Your task to perform on an android device: turn on showing notifications on the lock screen Image 0: 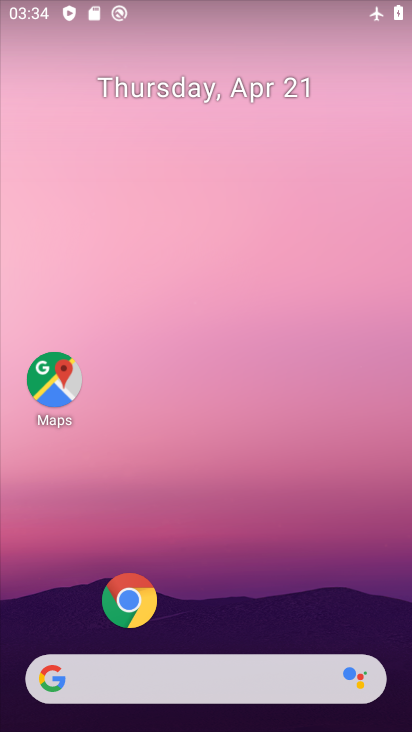
Step 0: drag from (254, 621) to (241, 197)
Your task to perform on an android device: turn on showing notifications on the lock screen Image 1: 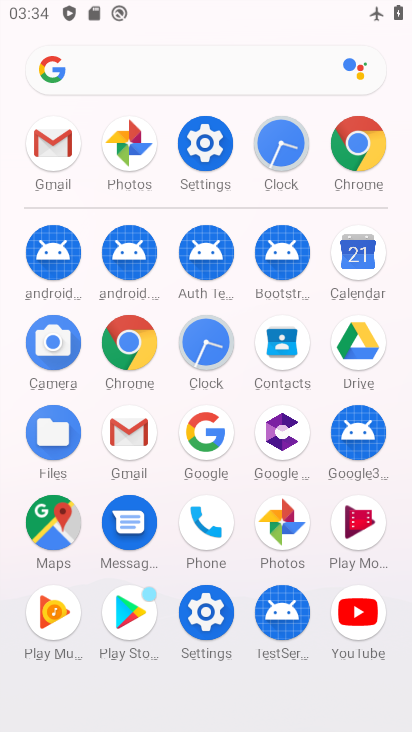
Step 1: click (221, 158)
Your task to perform on an android device: turn on showing notifications on the lock screen Image 2: 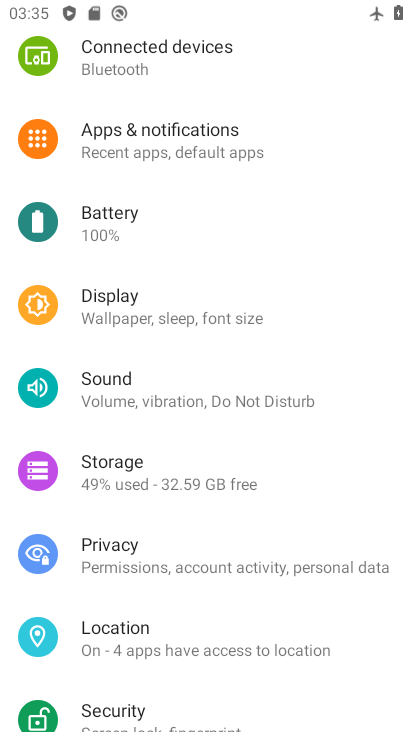
Step 2: click (214, 145)
Your task to perform on an android device: turn on showing notifications on the lock screen Image 3: 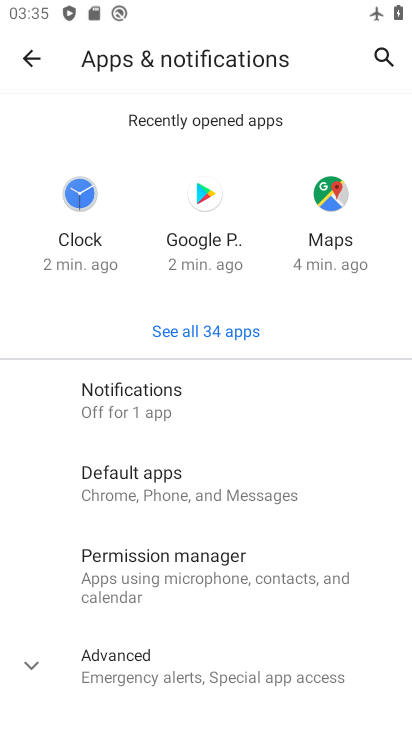
Step 3: click (186, 408)
Your task to perform on an android device: turn on showing notifications on the lock screen Image 4: 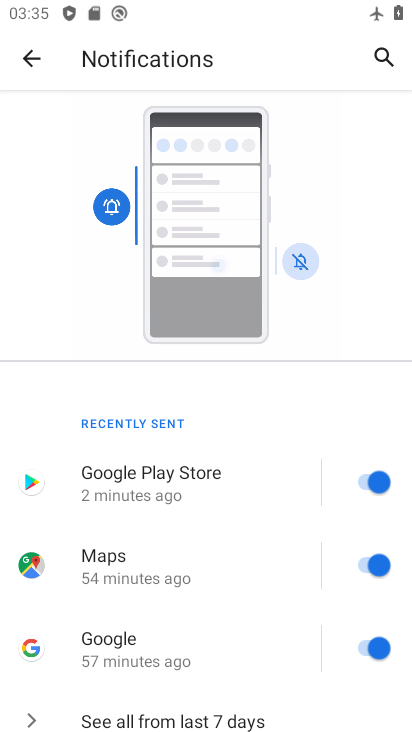
Step 4: drag from (168, 618) to (199, 148)
Your task to perform on an android device: turn on showing notifications on the lock screen Image 5: 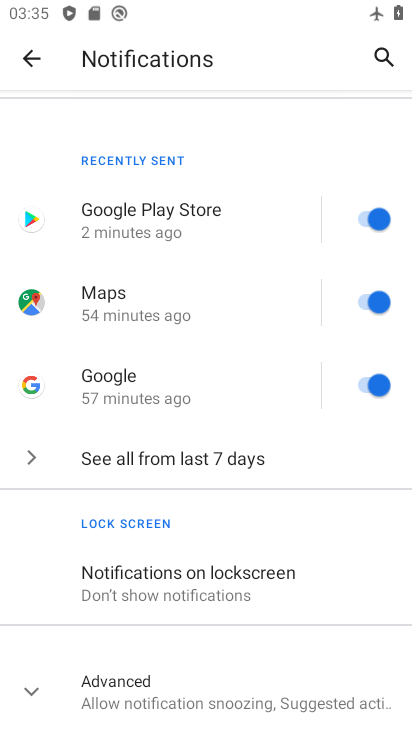
Step 5: click (148, 594)
Your task to perform on an android device: turn on showing notifications on the lock screen Image 6: 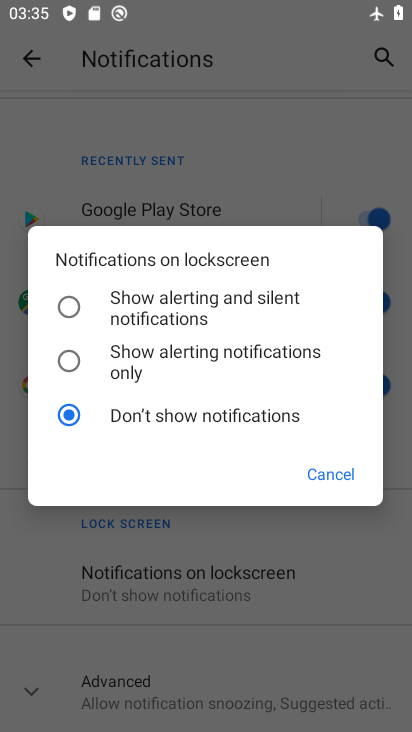
Step 6: click (198, 315)
Your task to perform on an android device: turn on showing notifications on the lock screen Image 7: 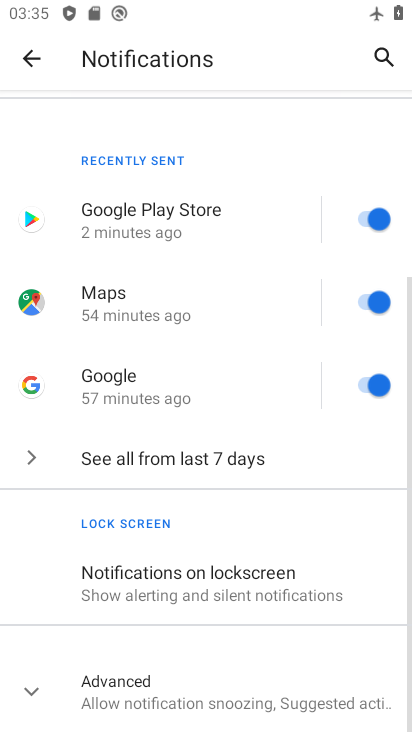
Step 7: task complete